Your task to perform on an android device: Open the stopwatch Image 0: 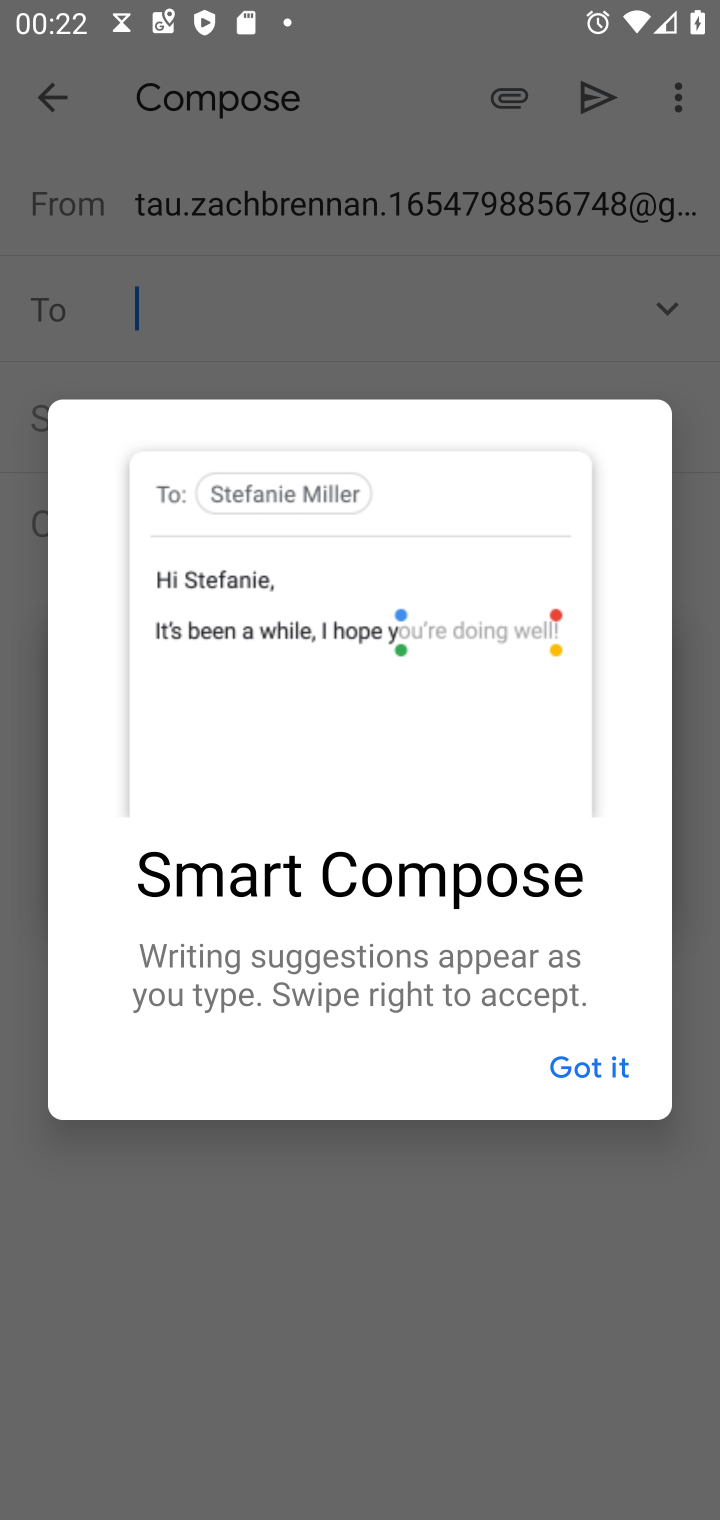
Step 0: press home button
Your task to perform on an android device: Open the stopwatch Image 1: 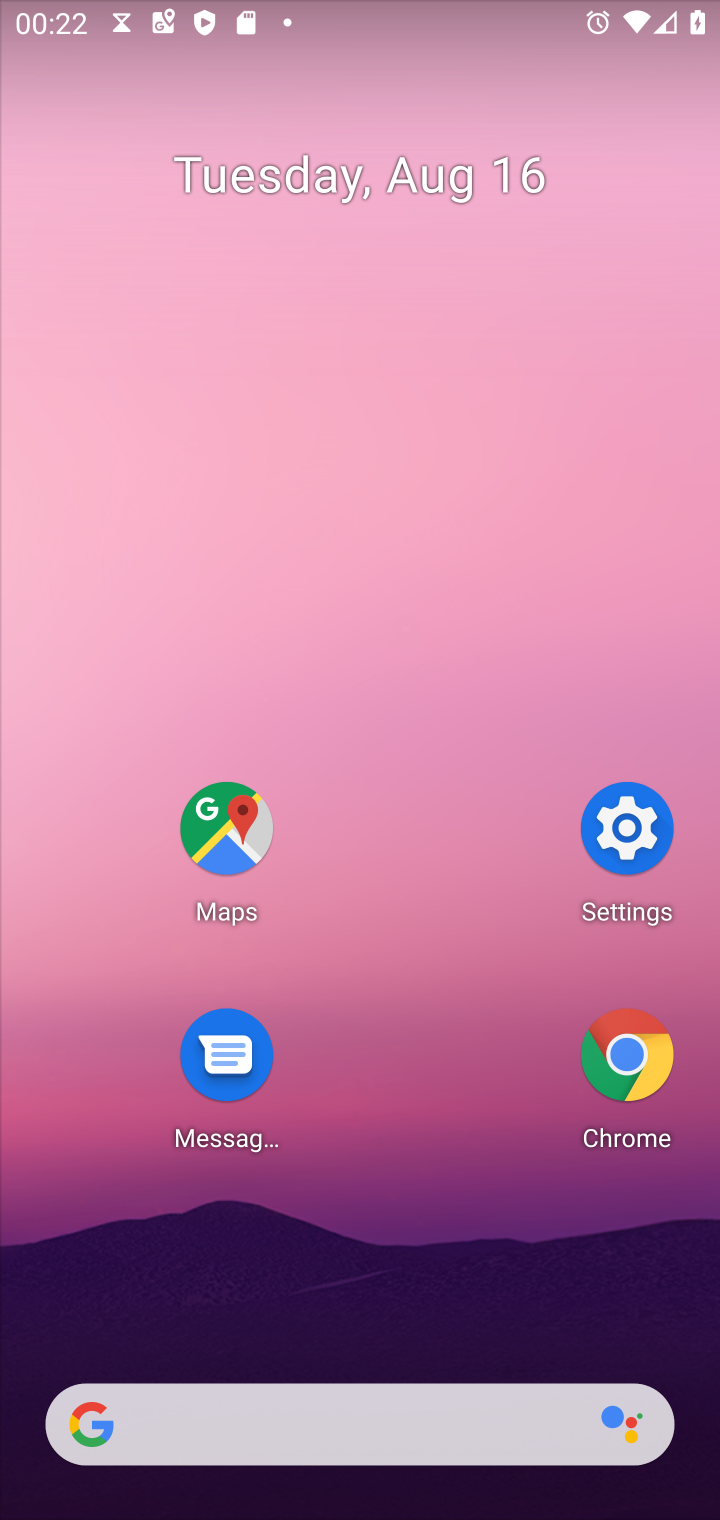
Step 1: drag from (431, 1102) to (621, 167)
Your task to perform on an android device: Open the stopwatch Image 2: 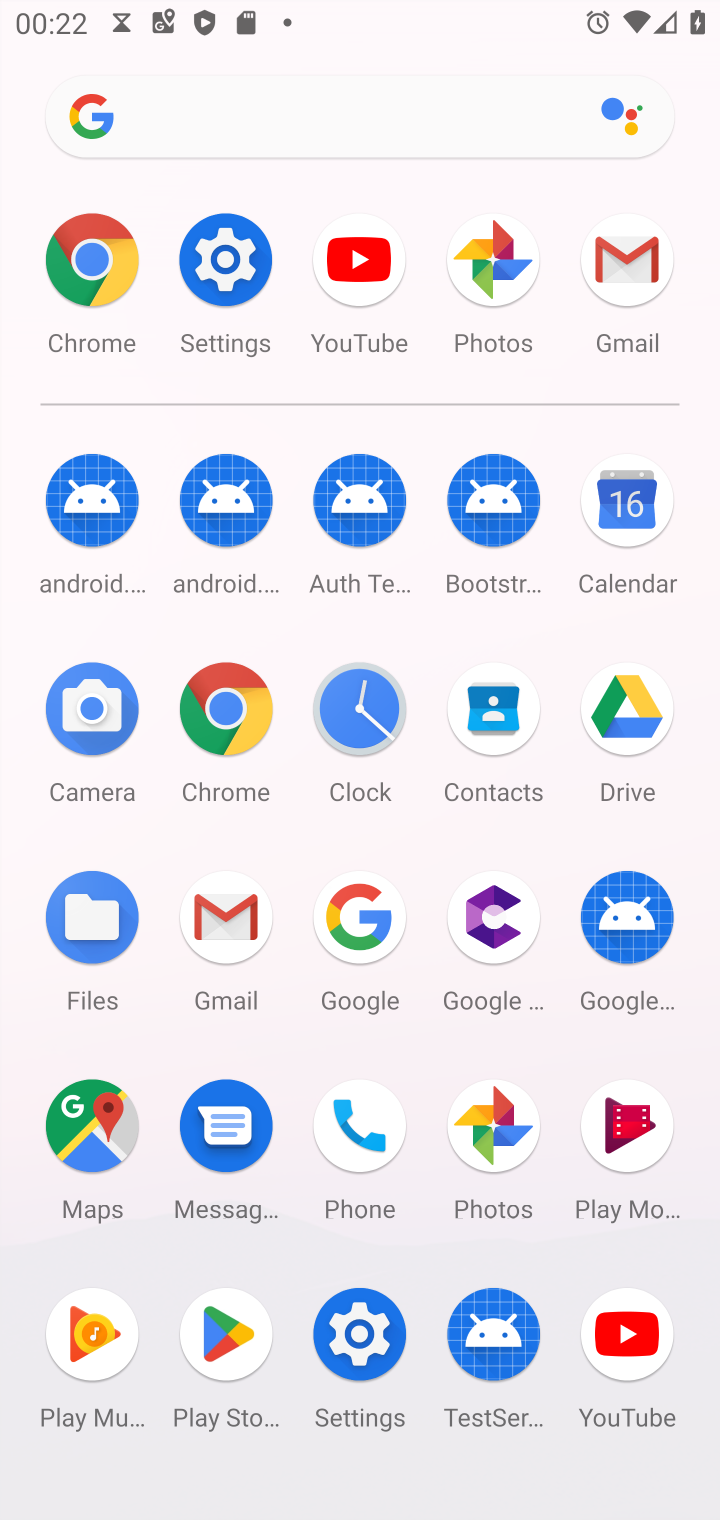
Step 2: click (353, 724)
Your task to perform on an android device: Open the stopwatch Image 3: 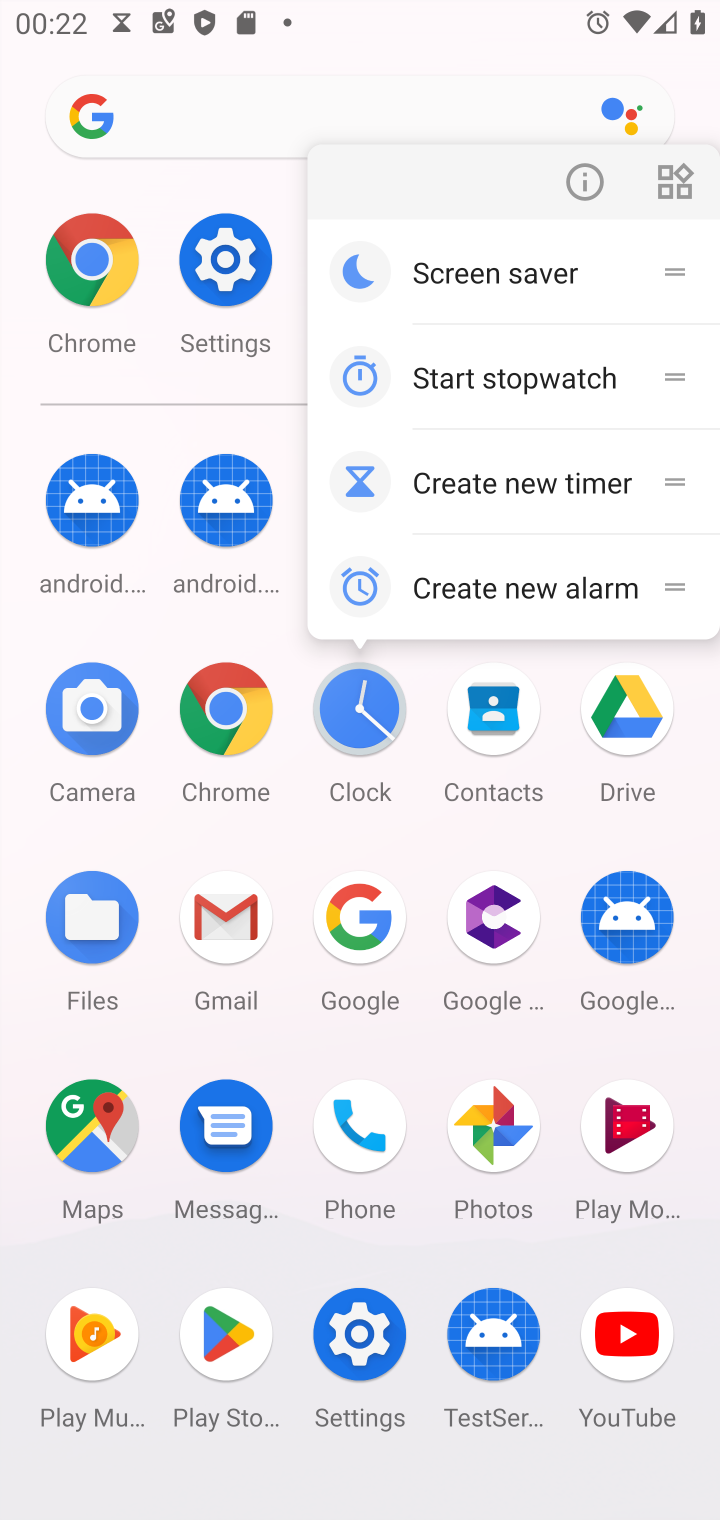
Step 3: click (363, 712)
Your task to perform on an android device: Open the stopwatch Image 4: 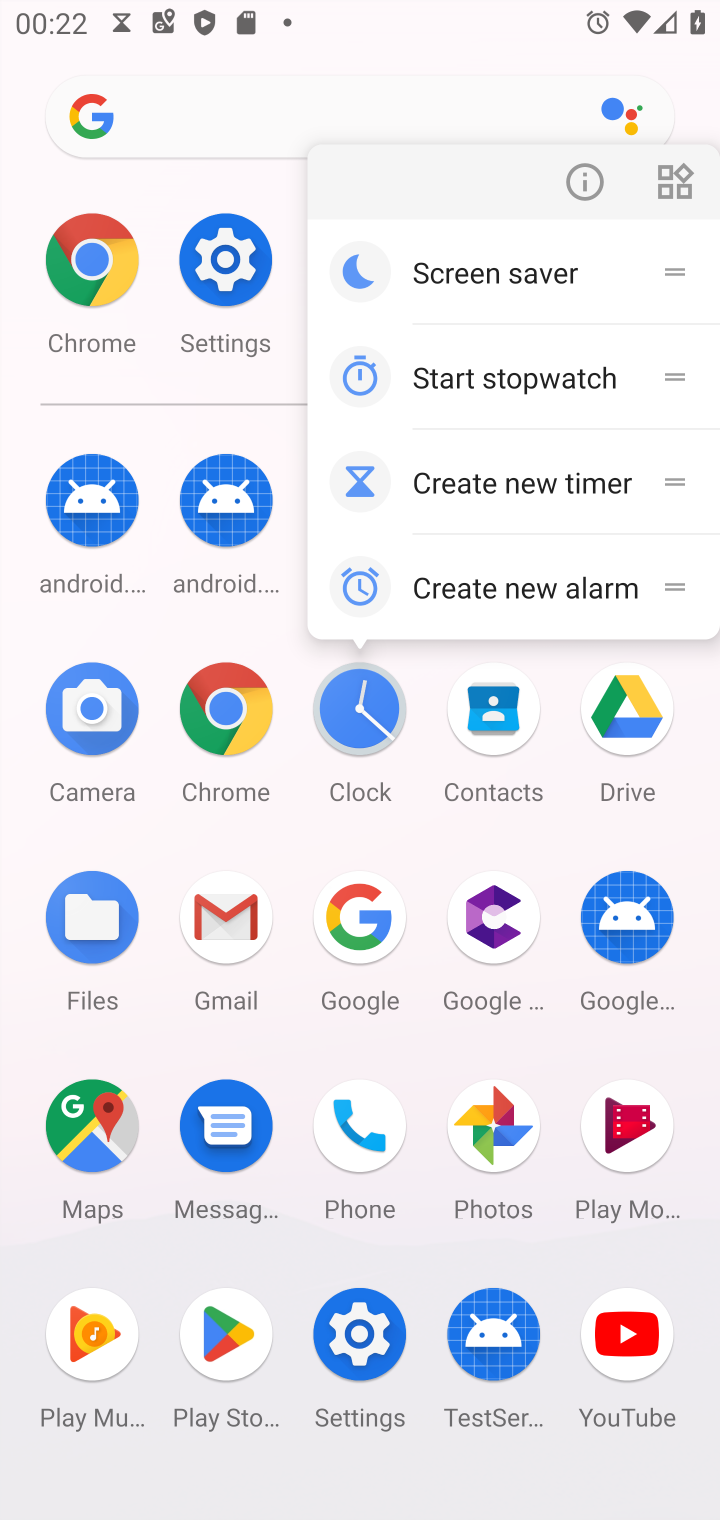
Step 4: click (363, 703)
Your task to perform on an android device: Open the stopwatch Image 5: 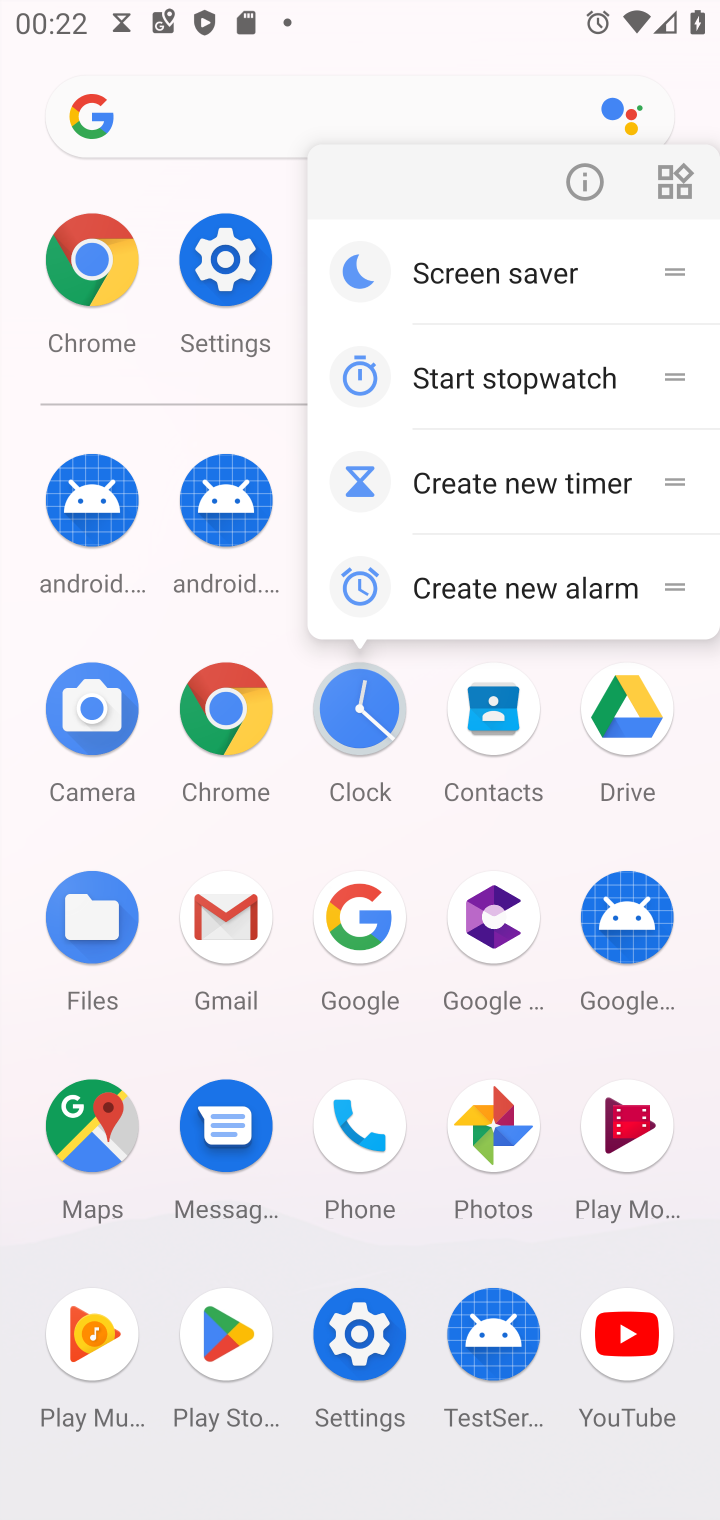
Step 5: click (363, 710)
Your task to perform on an android device: Open the stopwatch Image 6: 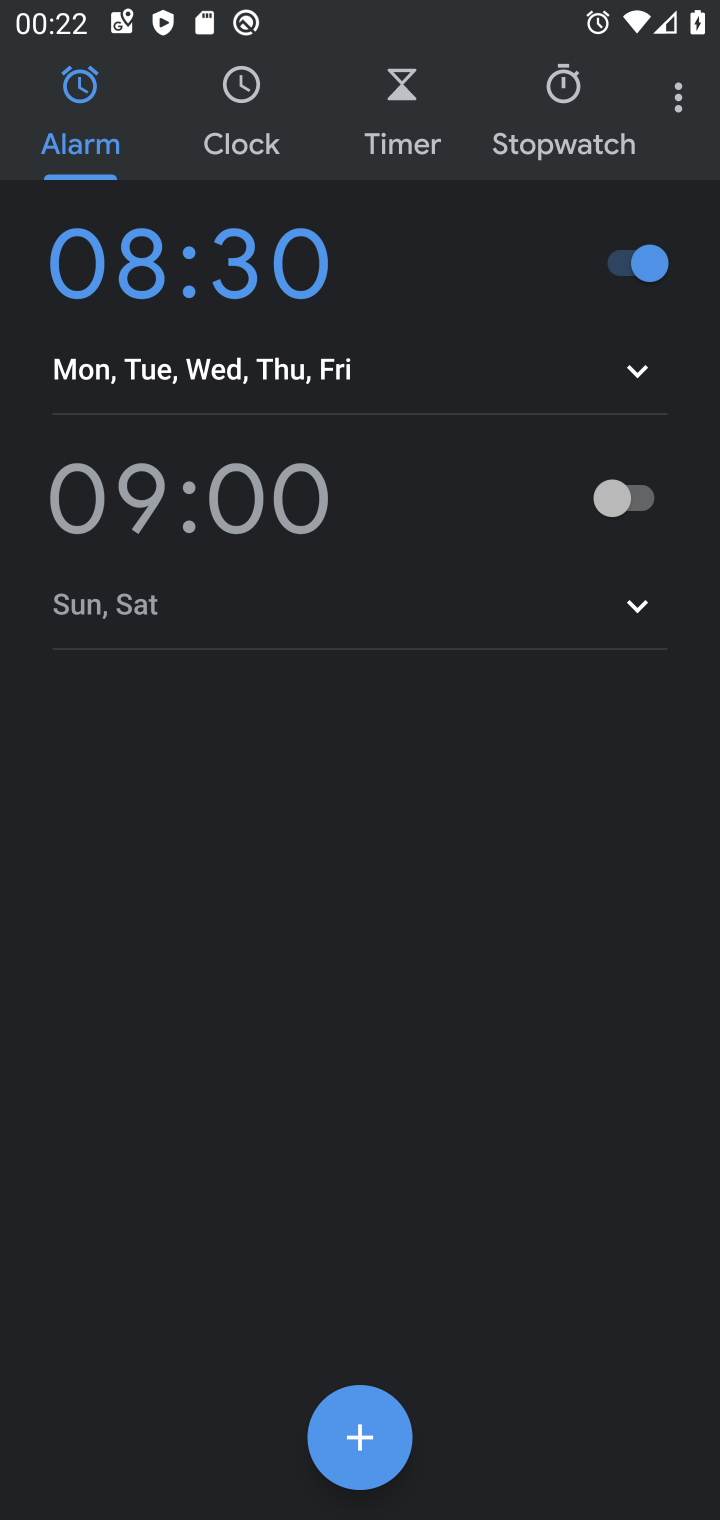
Step 6: click (555, 138)
Your task to perform on an android device: Open the stopwatch Image 7: 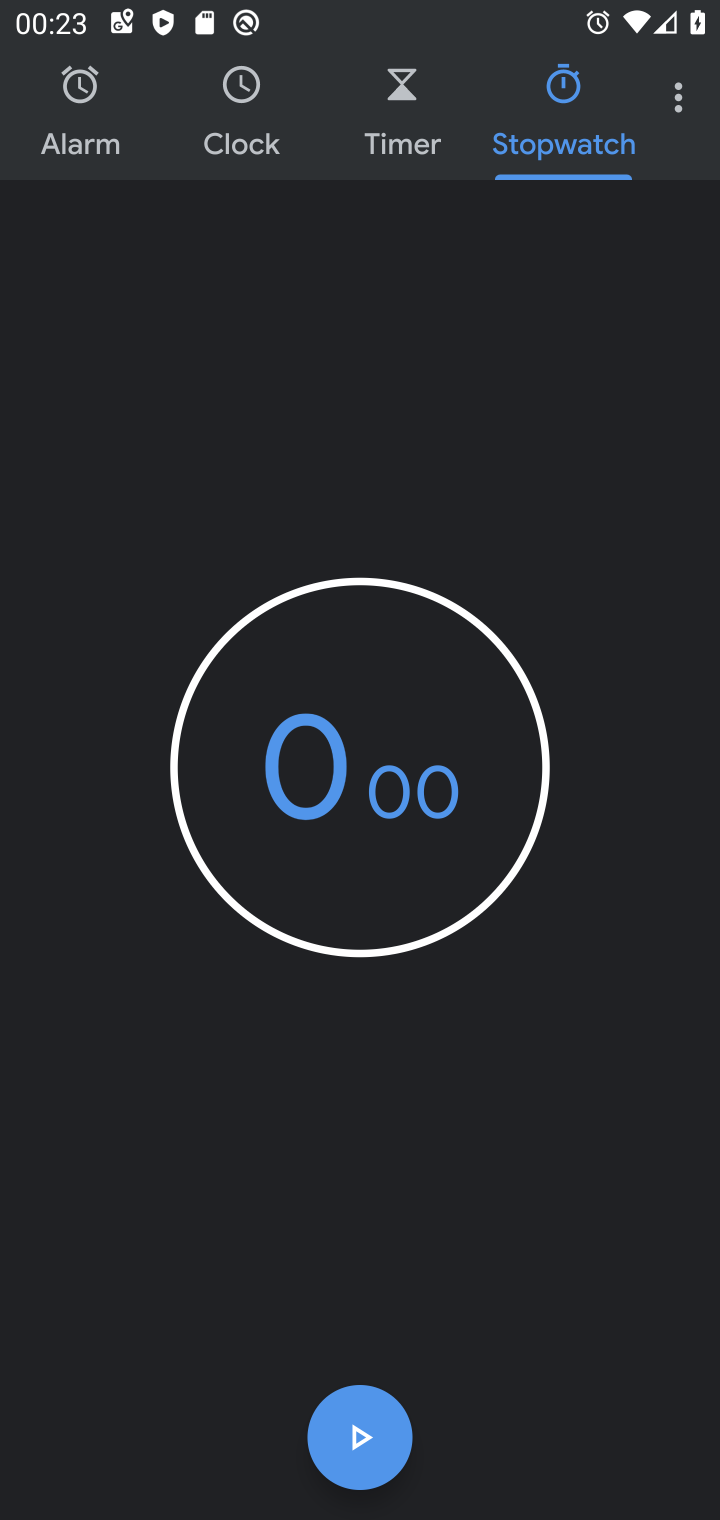
Step 7: task complete